Your task to perform on an android device: Open Chrome and go to the settings page Image 0: 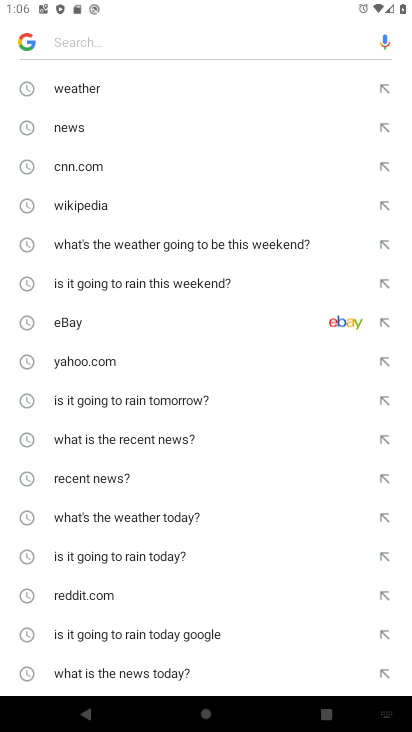
Step 0: press home button
Your task to perform on an android device: Open Chrome and go to the settings page Image 1: 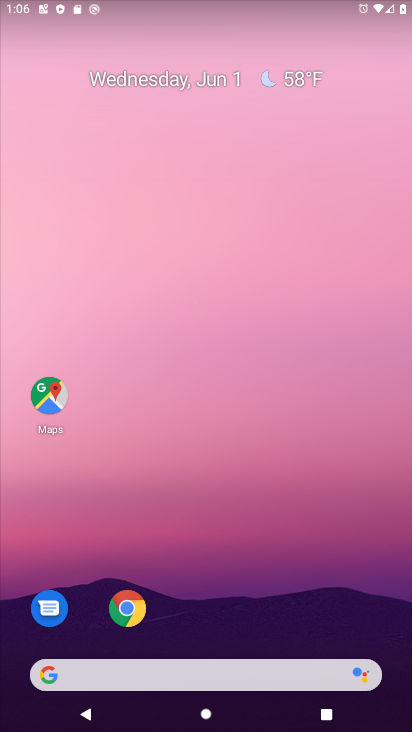
Step 1: click (127, 611)
Your task to perform on an android device: Open Chrome and go to the settings page Image 2: 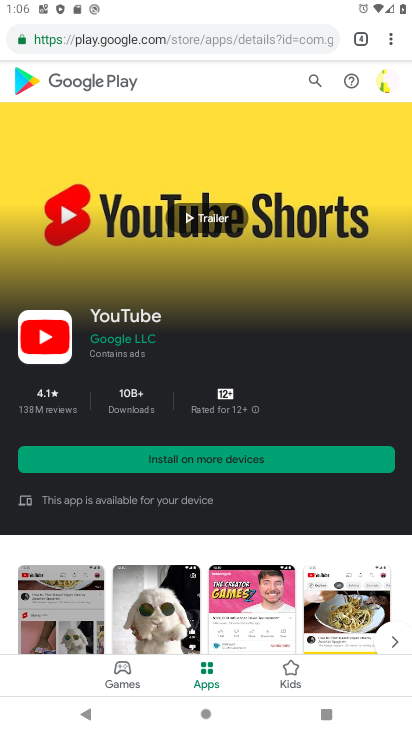
Step 2: click (382, 25)
Your task to perform on an android device: Open Chrome and go to the settings page Image 3: 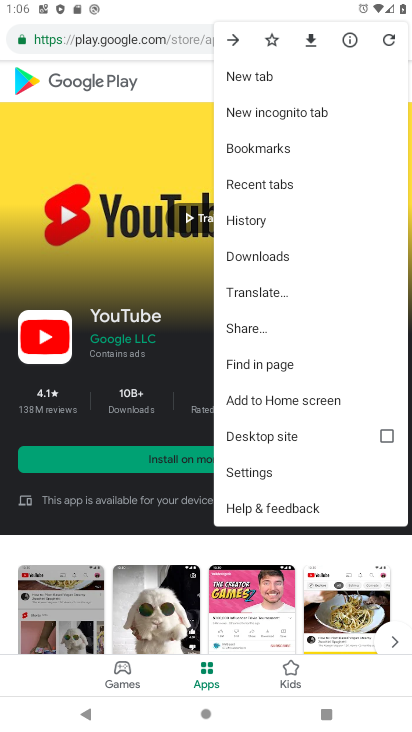
Step 3: click (250, 464)
Your task to perform on an android device: Open Chrome and go to the settings page Image 4: 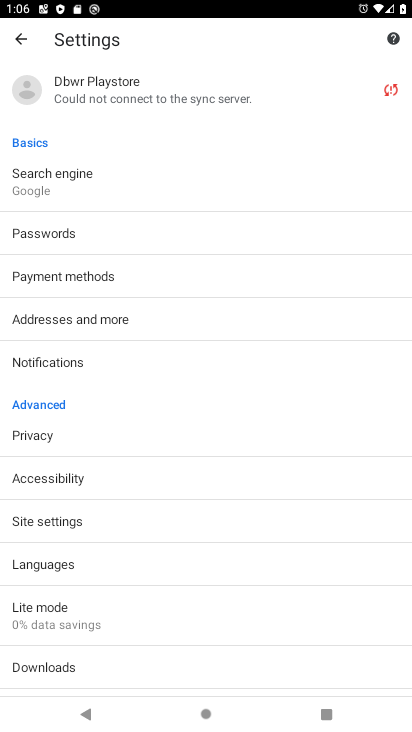
Step 4: task complete